Your task to perform on an android device: see tabs open on other devices in the chrome app Image 0: 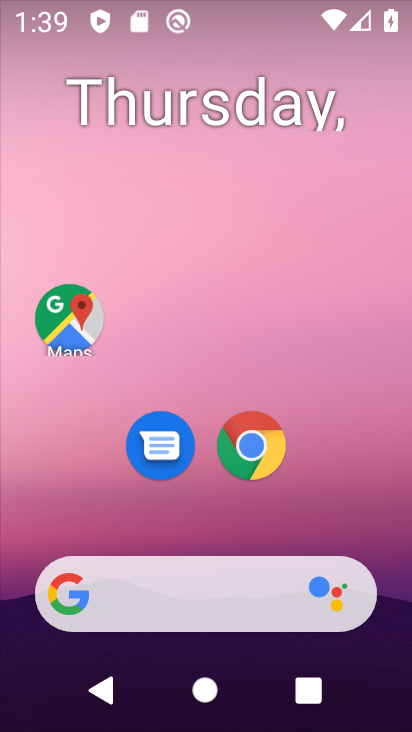
Step 0: press home button
Your task to perform on an android device: see tabs open on other devices in the chrome app Image 1: 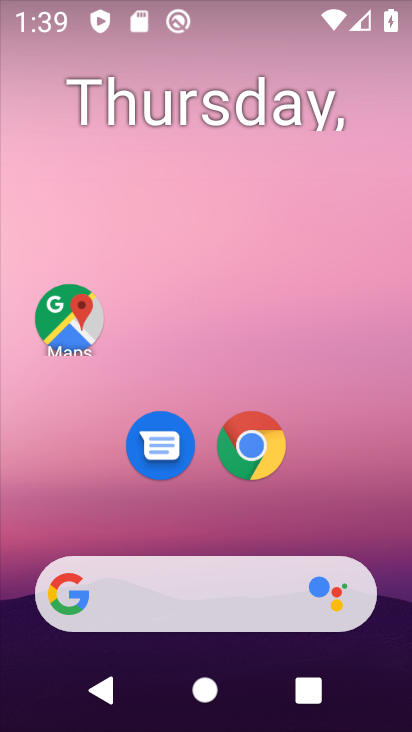
Step 1: click (246, 434)
Your task to perform on an android device: see tabs open on other devices in the chrome app Image 2: 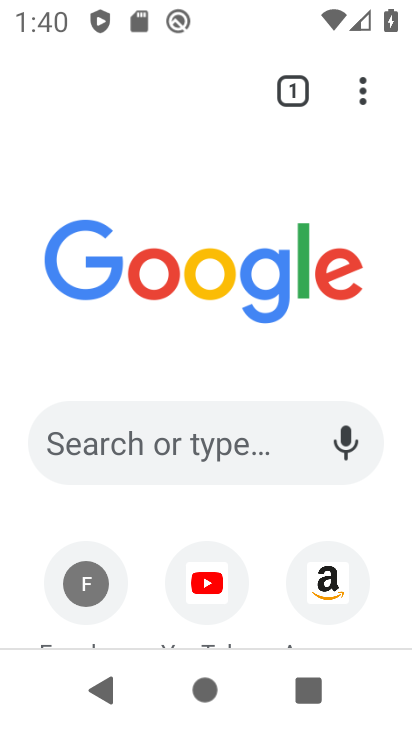
Step 2: task complete